Your task to perform on an android device: toggle wifi Image 0: 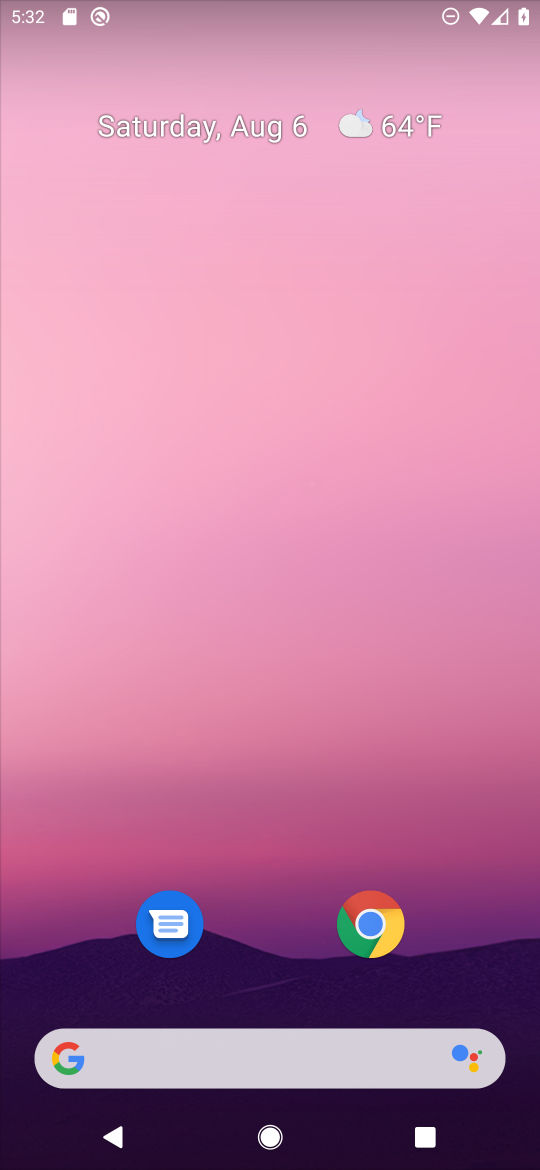
Step 0: drag from (287, 907) to (287, 151)
Your task to perform on an android device: toggle wifi Image 1: 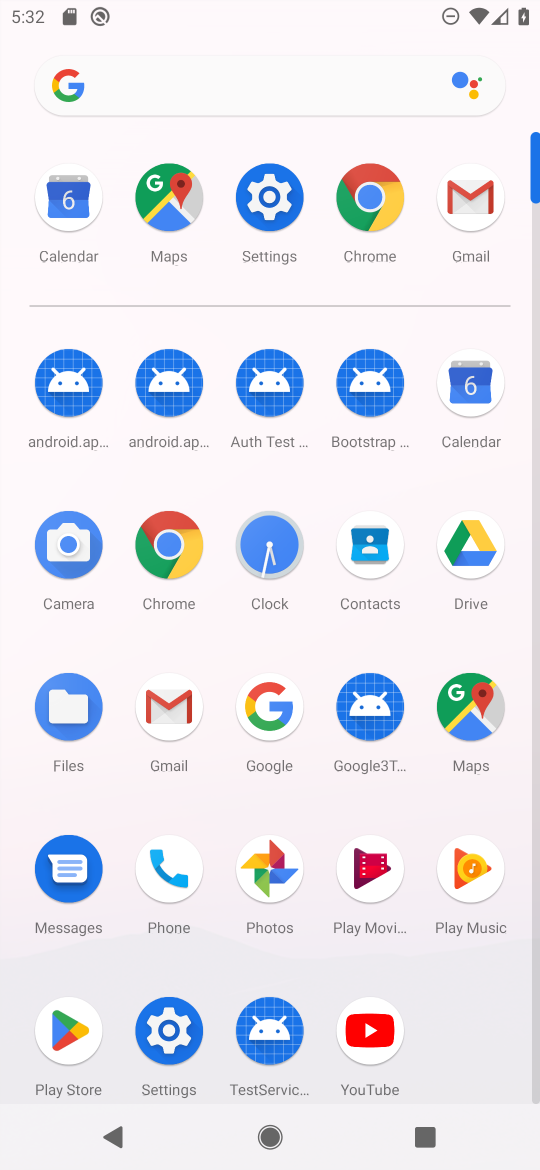
Step 1: click (267, 203)
Your task to perform on an android device: toggle wifi Image 2: 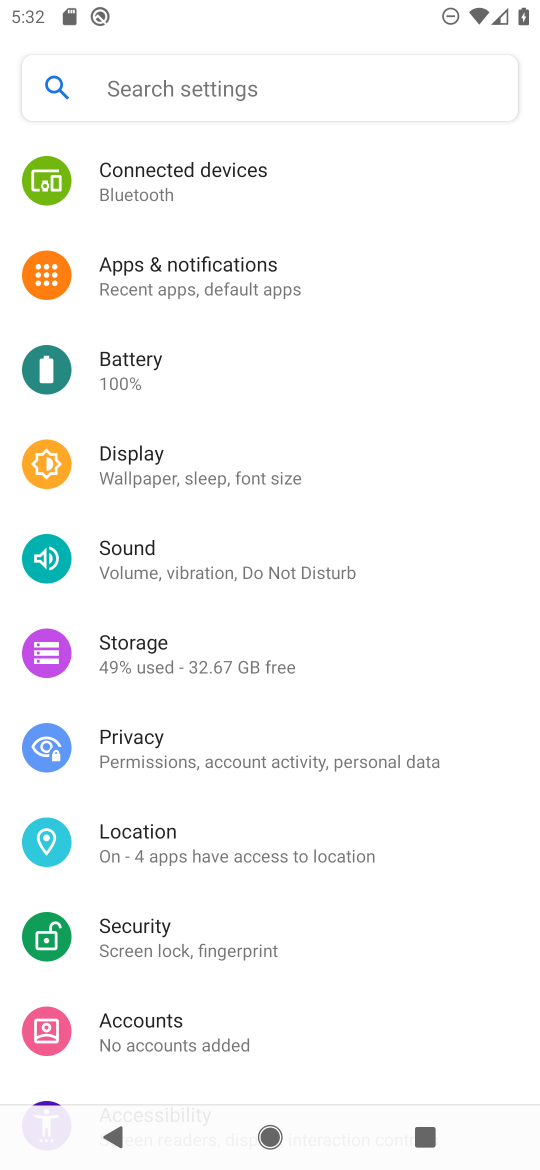
Step 2: drag from (273, 344) to (283, 865)
Your task to perform on an android device: toggle wifi Image 3: 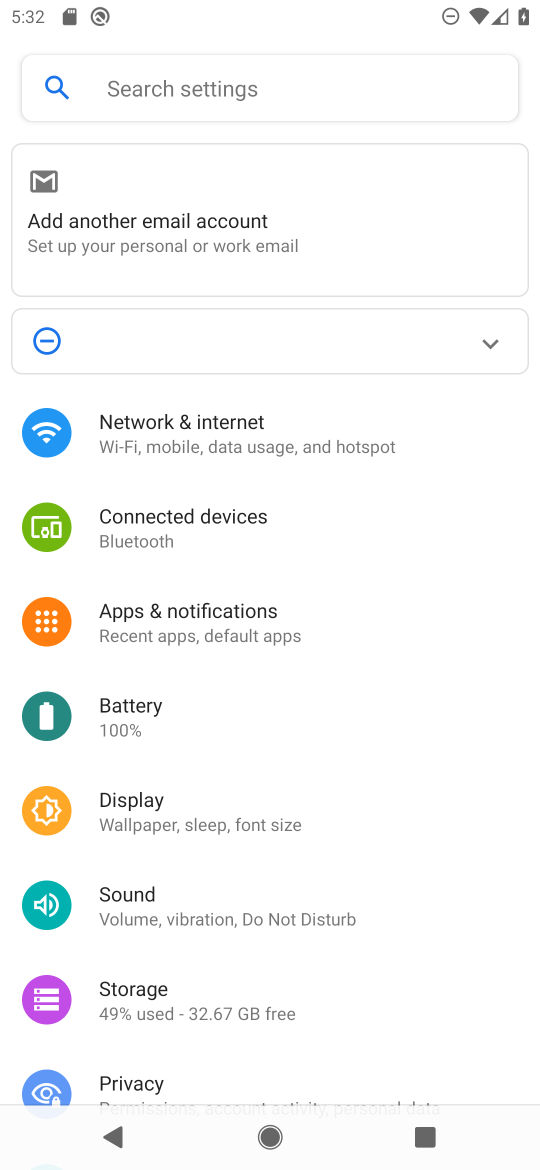
Step 3: click (190, 425)
Your task to perform on an android device: toggle wifi Image 4: 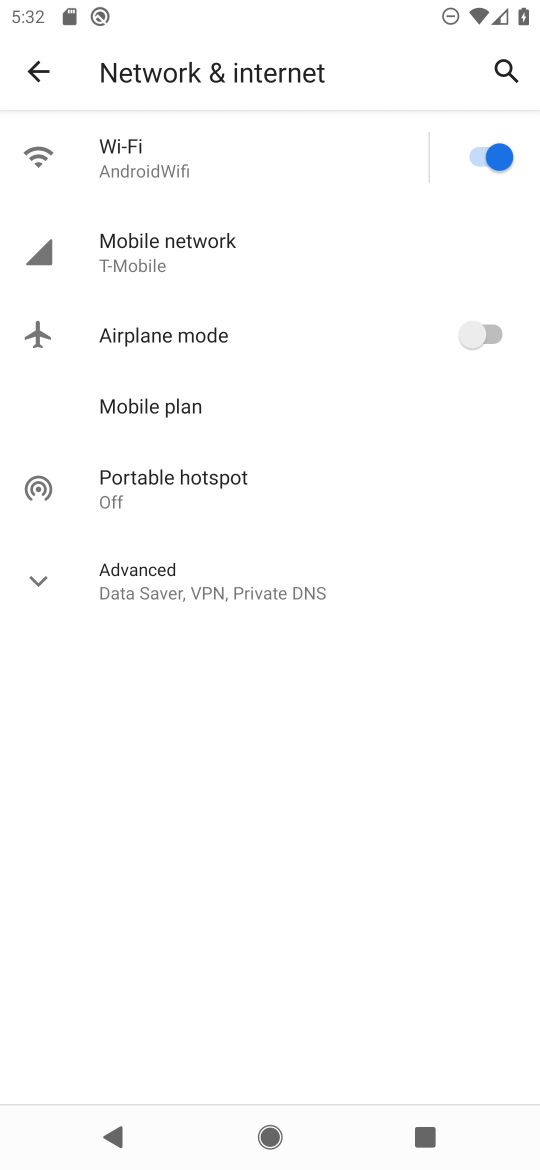
Step 4: click (515, 151)
Your task to perform on an android device: toggle wifi Image 5: 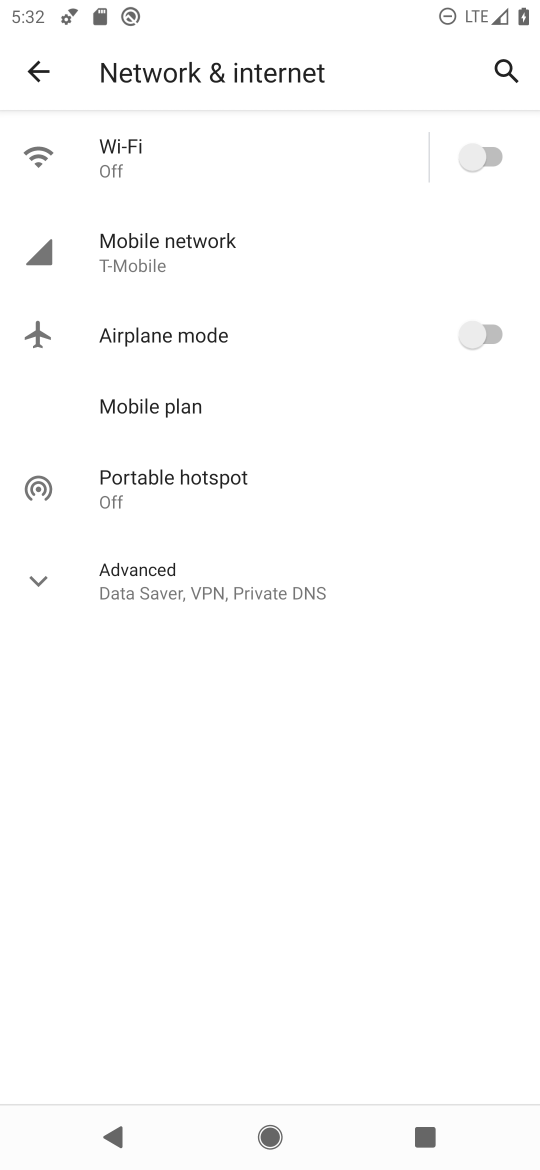
Step 5: task complete